Your task to perform on an android device: Show me popular videos on Youtube Image 0: 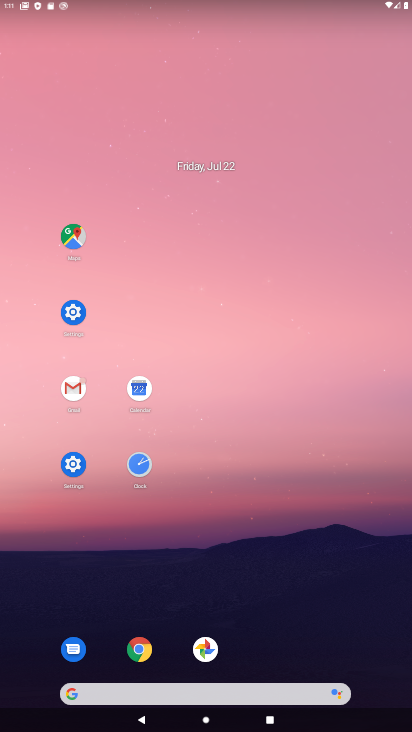
Step 0: drag from (281, 614) to (375, 31)
Your task to perform on an android device: Show me popular videos on Youtube Image 1: 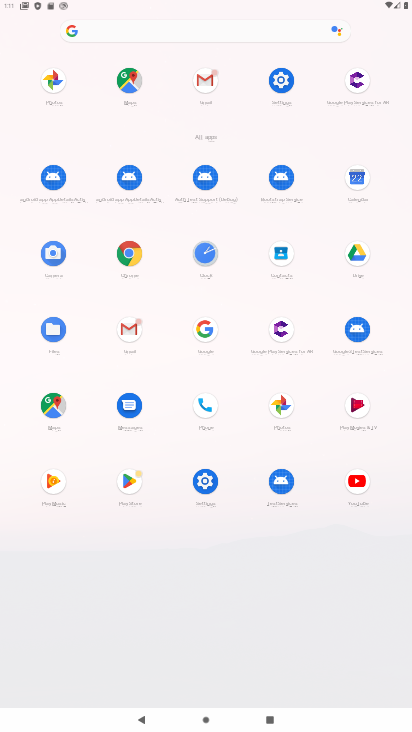
Step 1: click (354, 471)
Your task to perform on an android device: Show me popular videos on Youtube Image 2: 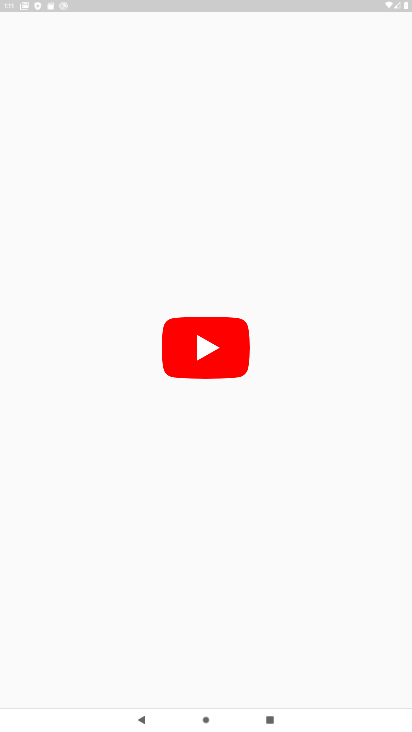
Step 2: click (354, 471)
Your task to perform on an android device: Show me popular videos on Youtube Image 3: 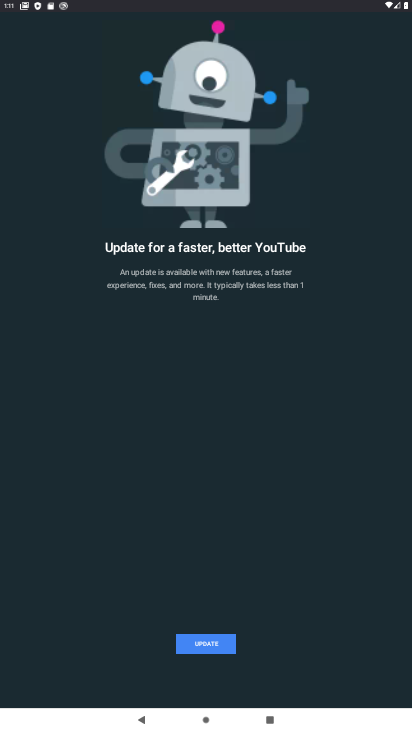
Step 3: click (202, 641)
Your task to perform on an android device: Show me popular videos on Youtube Image 4: 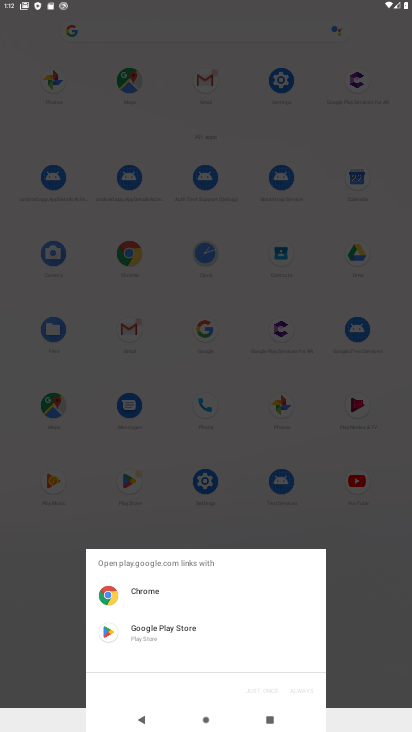
Step 4: click (188, 630)
Your task to perform on an android device: Show me popular videos on Youtube Image 5: 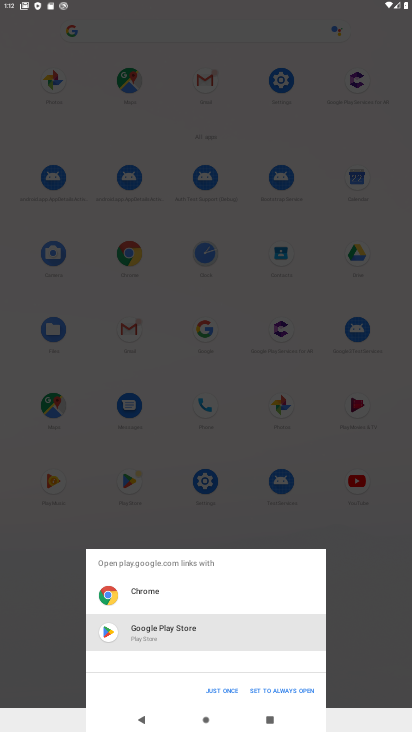
Step 5: click (221, 682)
Your task to perform on an android device: Show me popular videos on Youtube Image 6: 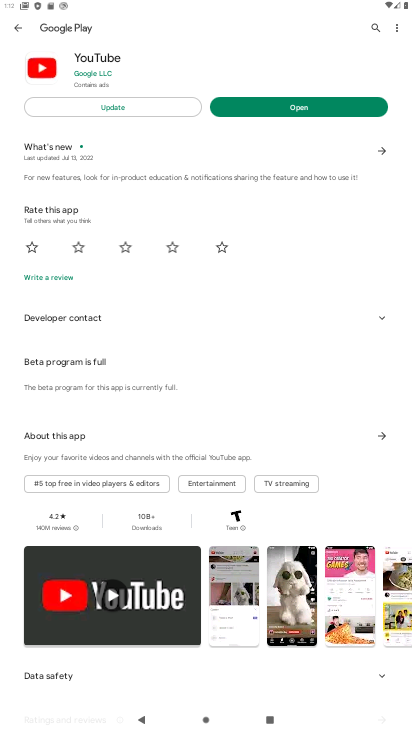
Step 6: click (131, 102)
Your task to perform on an android device: Show me popular videos on Youtube Image 7: 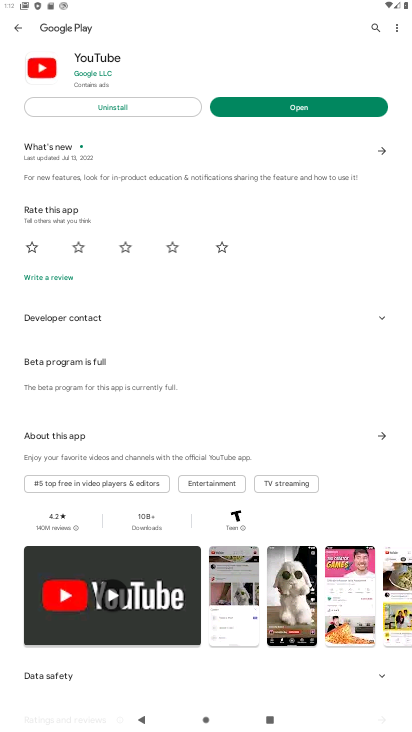
Step 7: click (245, 114)
Your task to perform on an android device: Show me popular videos on Youtube Image 8: 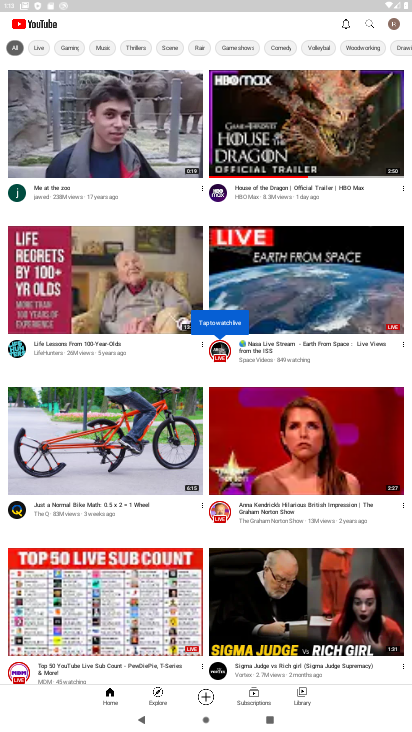
Step 8: click (151, 694)
Your task to perform on an android device: Show me popular videos on Youtube Image 9: 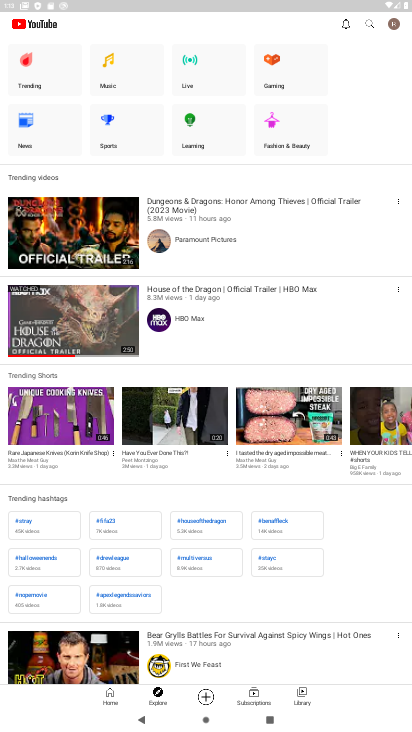
Step 9: task complete